Your task to perform on an android device: Open the calendar app, open the side menu, and click the "Day" option Image 0: 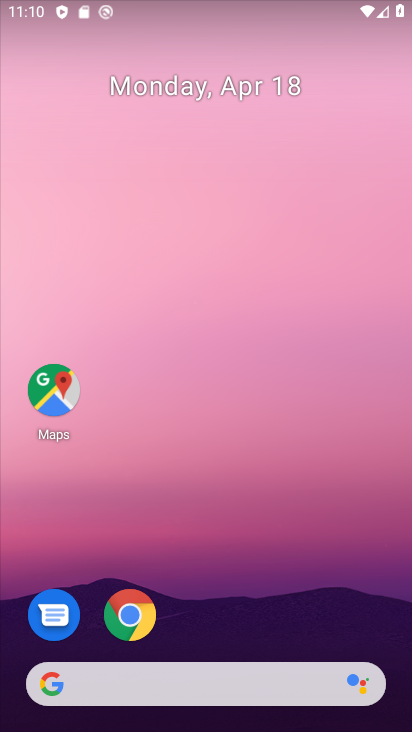
Step 0: drag from (368, 617) to (341, 94)
Your task to perform on an android device: Open the calendar app, open the side menu, and click the "Day" option Image 1: 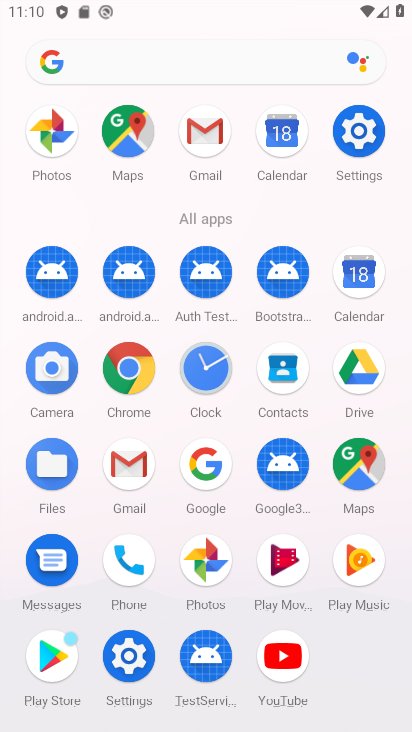
Step 1: click (358, 286)
Your task to perform on an android device: Open the calendar app, open the side menu, and click the "Day" option Image 2: 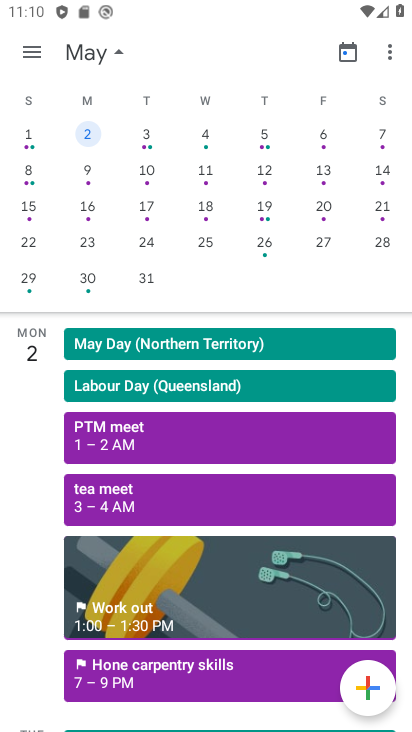
Step 2: click (34, 47)
Your task to perform on an android device: Open the calendar app, open the side menu, and click the "Day" option Image 3: 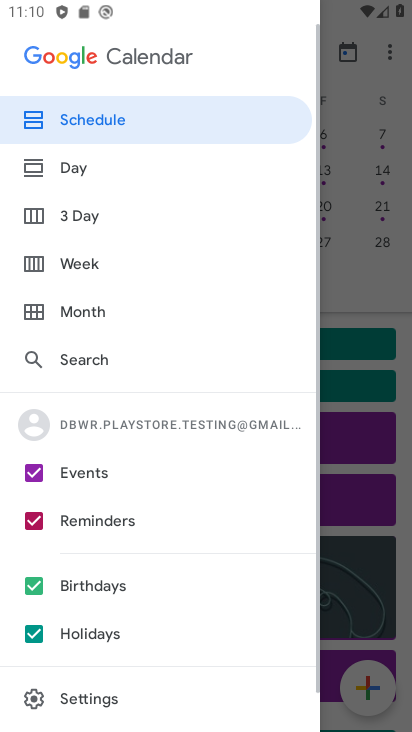
Step 3: click (84, 162)
Your task to perform on an android device: Open the calendar app, open the side menu, and click the "Day" option Image 4: 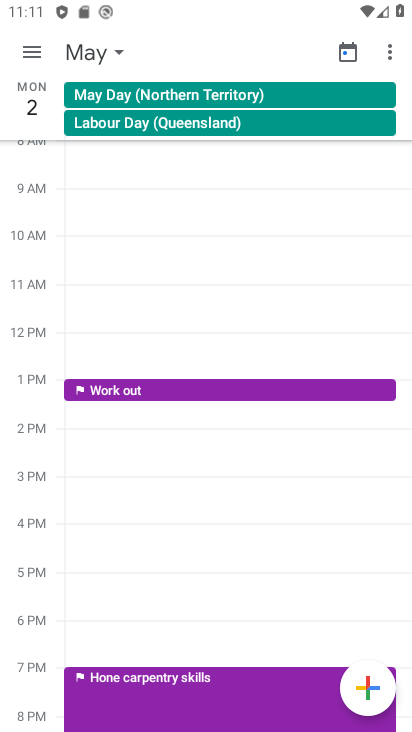
Step 4: task complete